Your task to perform on an android device: Open Android settings Image 0: 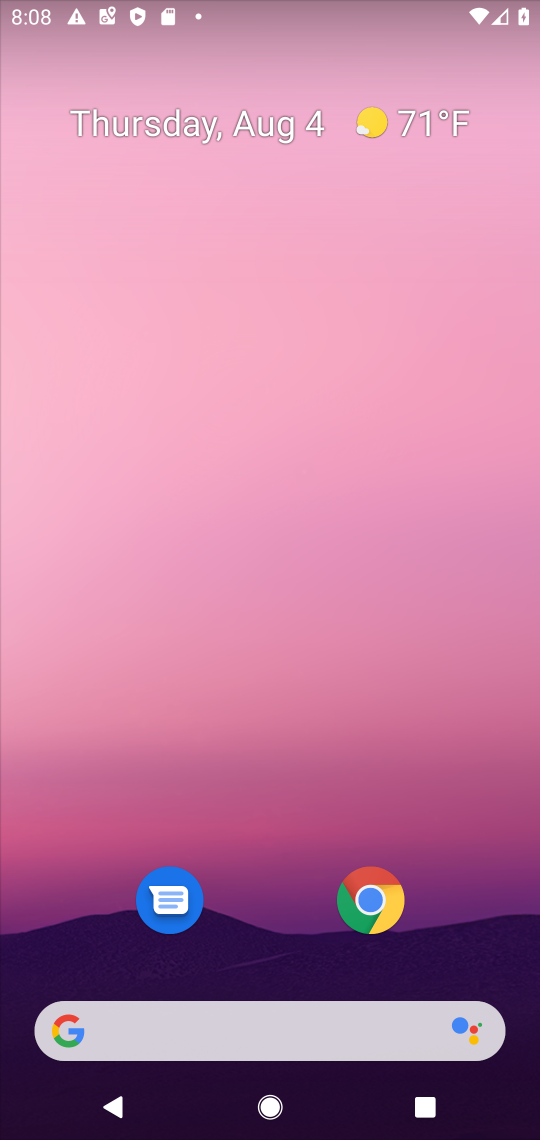
Step 0: drag from (256, 367) to (256, 184)
Your task to perform on an android device: Open Android settings Image 1: 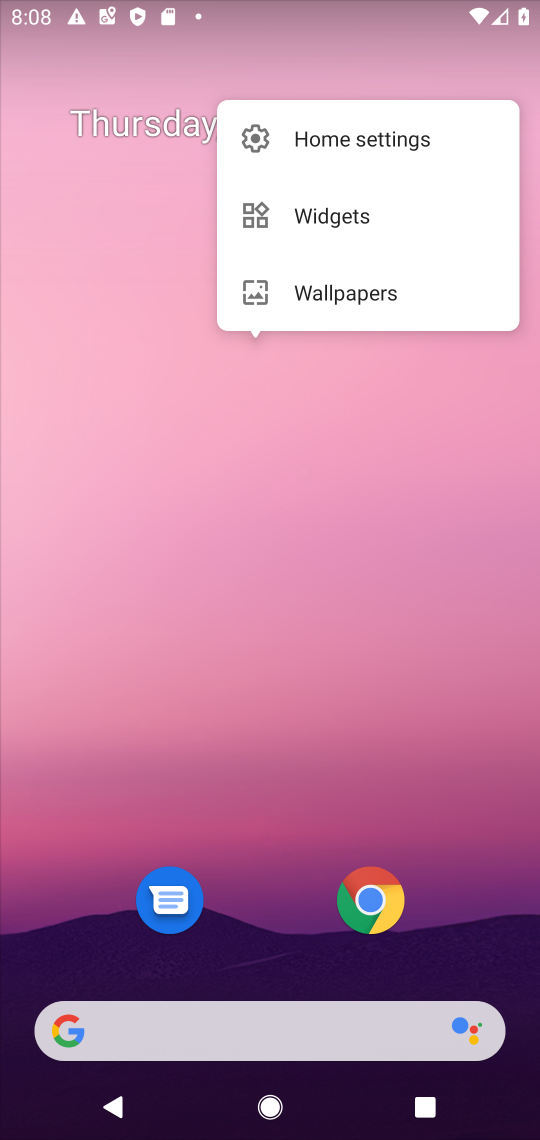
Step 1: click (309, 946)
Your task to perform on an android device: Open Android settings Image 2: 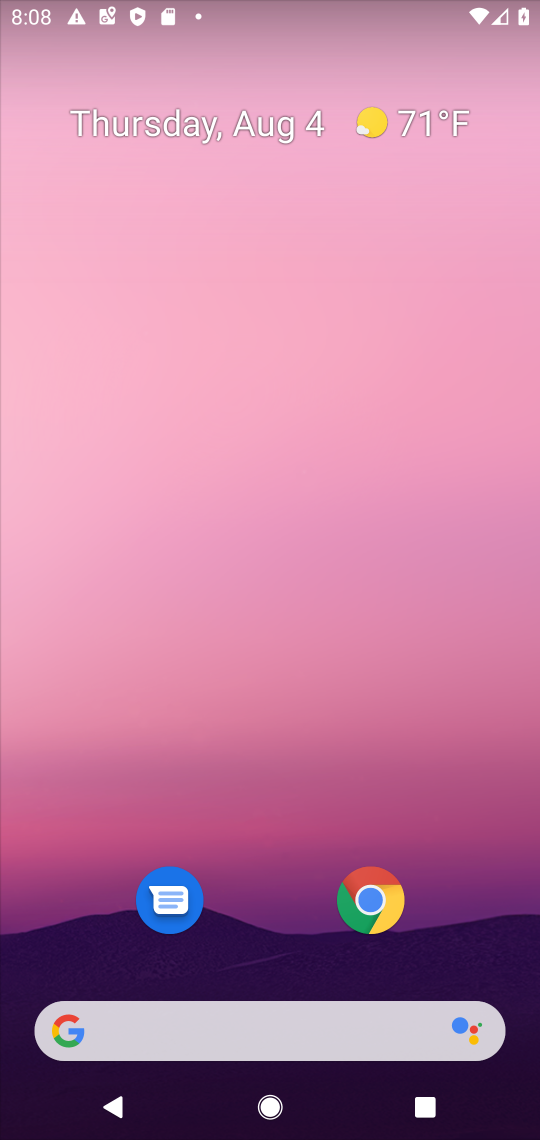
Step 2: drag from (262, 960) to (290, 59)
Your task to perform on an android device: Open Android settings Image 3: 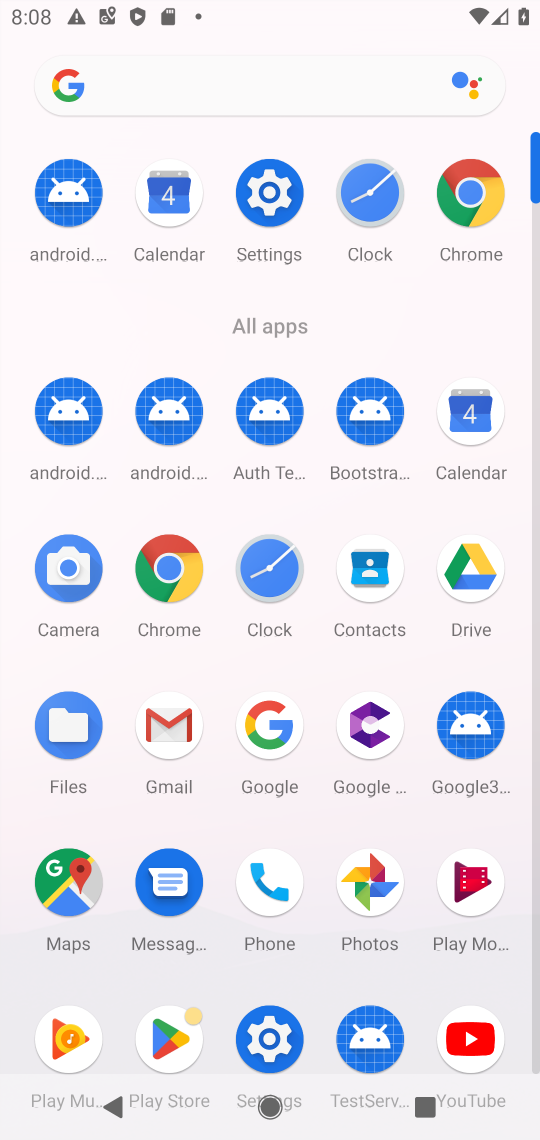
Step 3: click (268, 196)
Your task to perform on an android device: Open Android settings Image 4: 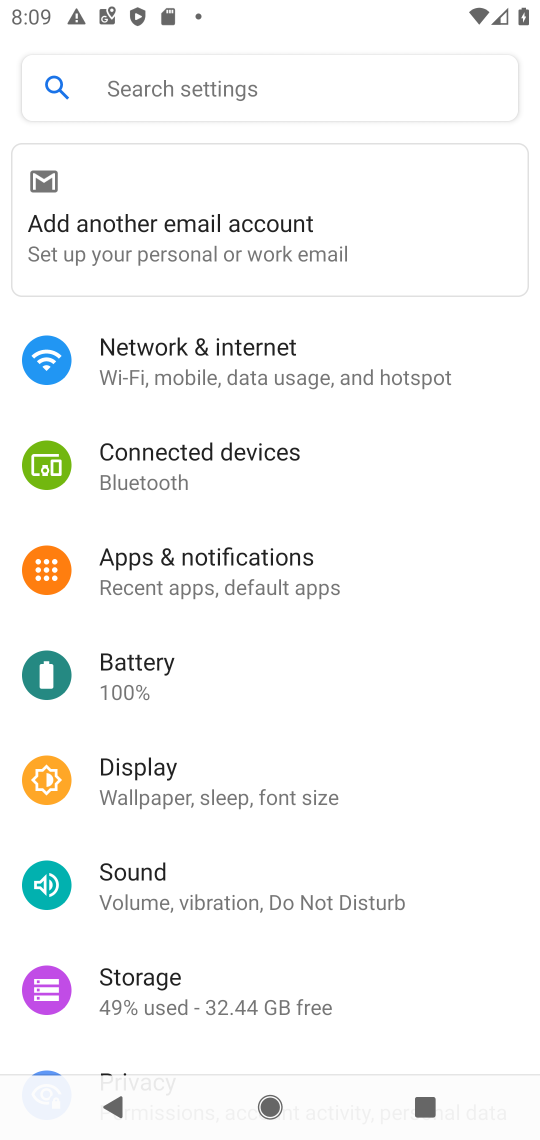
Step 4: drag from (160, 943) to (163, 233)
Your task to perform on an android device: Open Android settings Image 5: 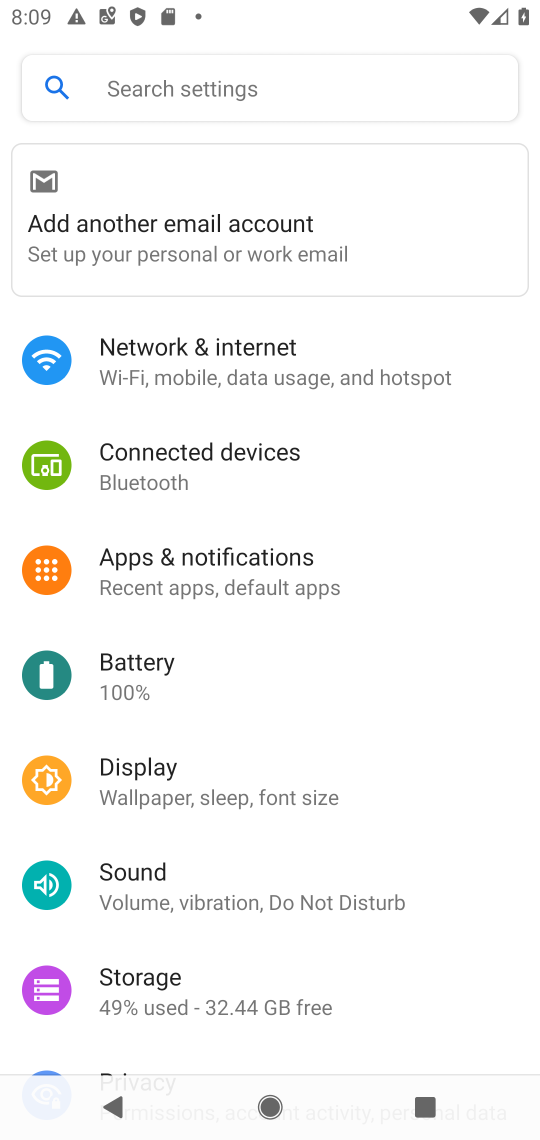
Step 5: drag from (134, 955) to (135, 181)
Your task to perform on an android device: Open Android settings Image 6: 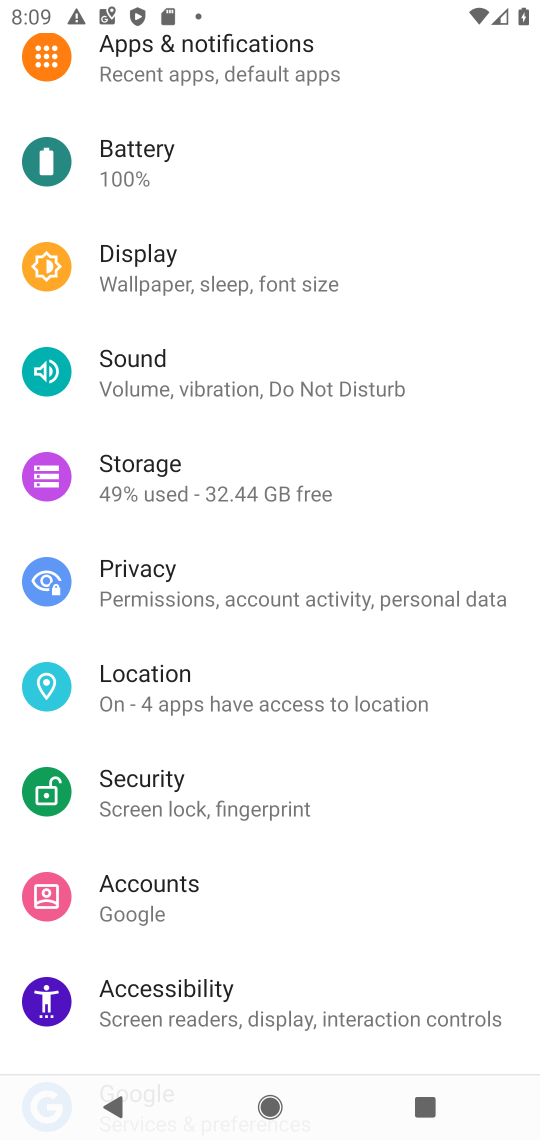
Step 6: drag from (158, 817) to (191, 178)
Your task to perform on an android device: Open Android settings Image 7: 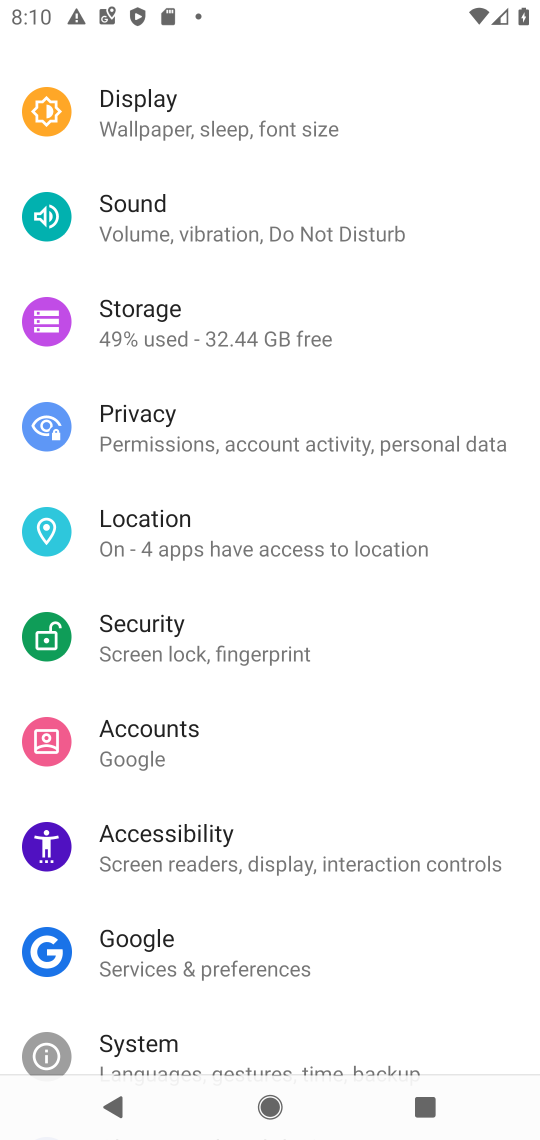
Step 7: drag from (192, 922) to (184, 476)
Your task to perform on an android device: Open Android settings Image 8: 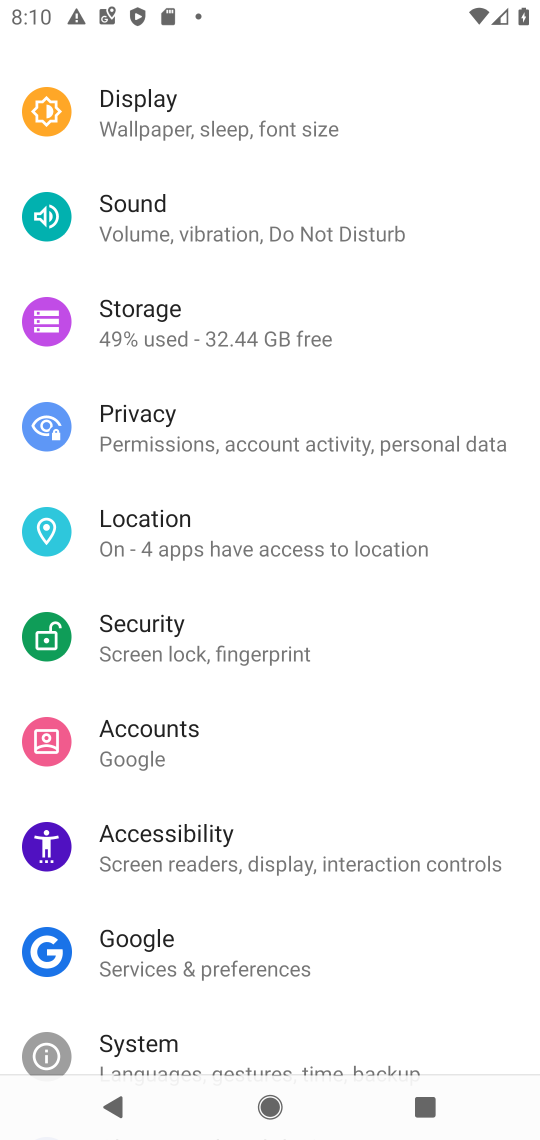
Step 8: click (184, 122)
Your task to perform on an android device: Open Android settings Image 9: 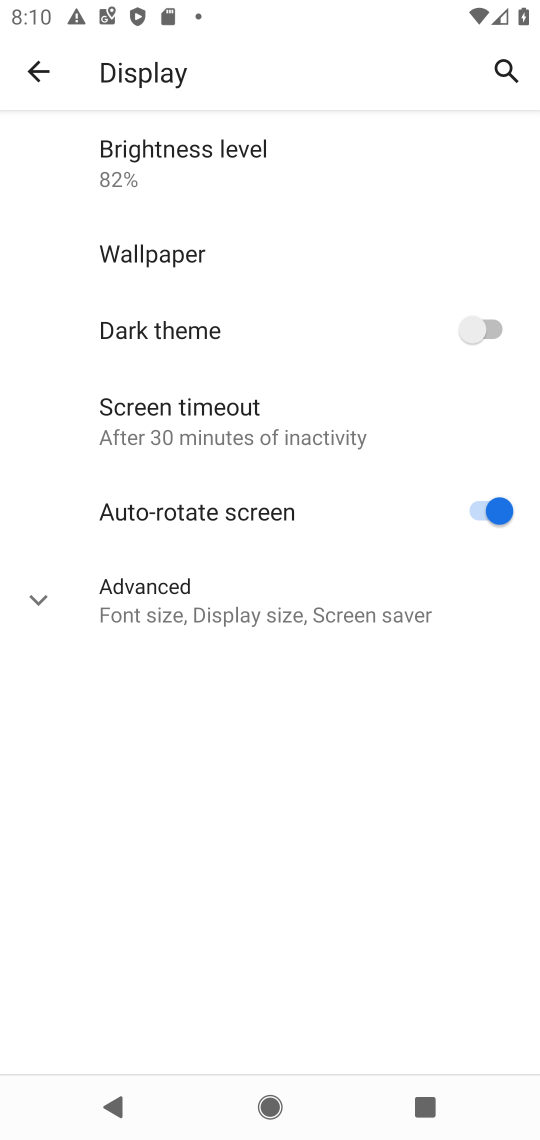
Step 9: click (38, 70)
Your task to perform on an android device: Open Android settings Image 10: 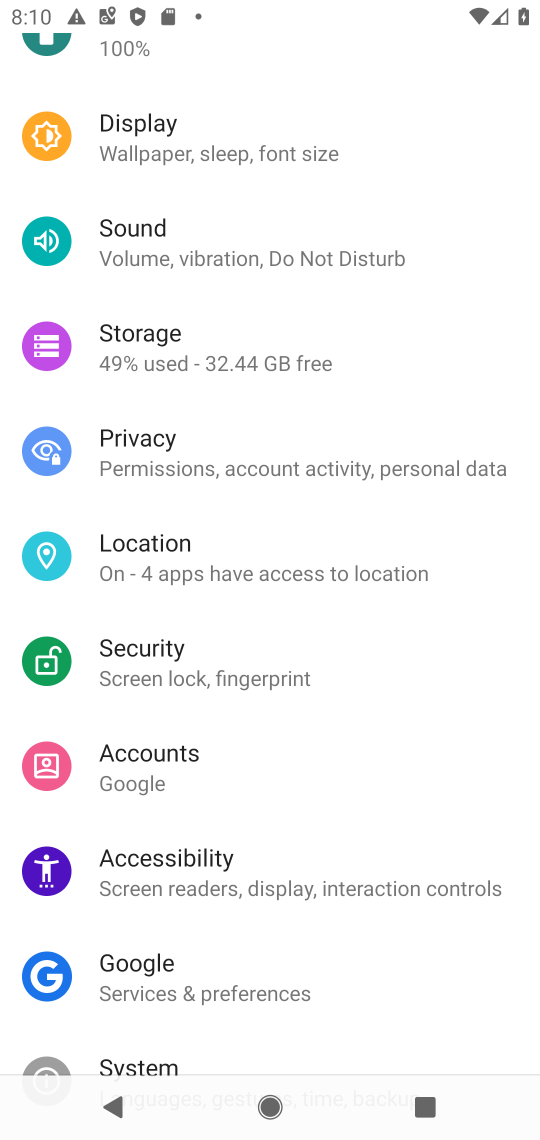
Step 10: drag from (157, 902) to (237, 355)
Your task to perform on an android device: Open Android settings Image 11: 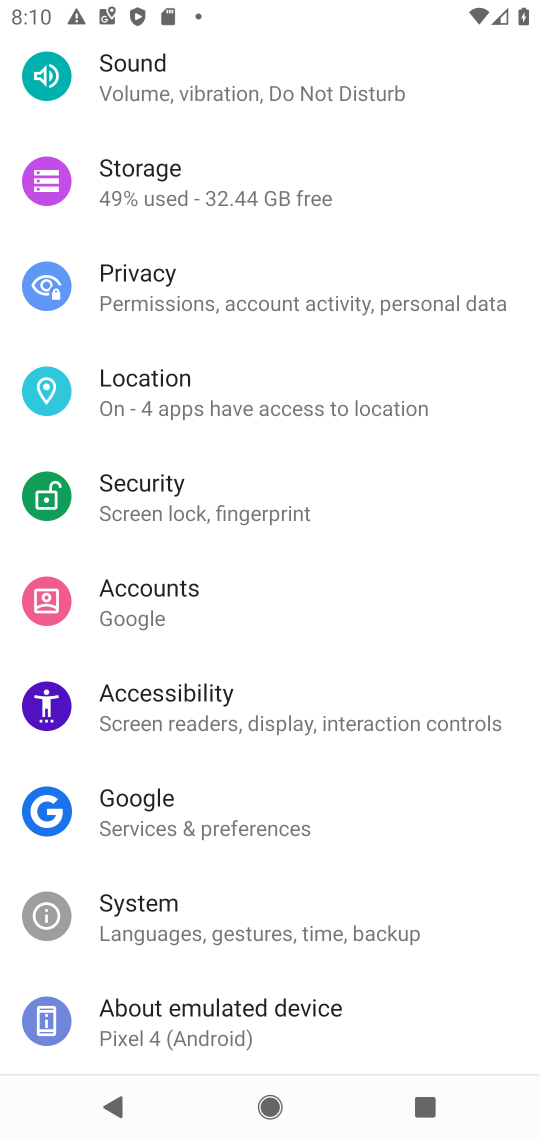
Step 11: click (178, 1018)
Your task to perform on an android device: Open Android settings Image 12: 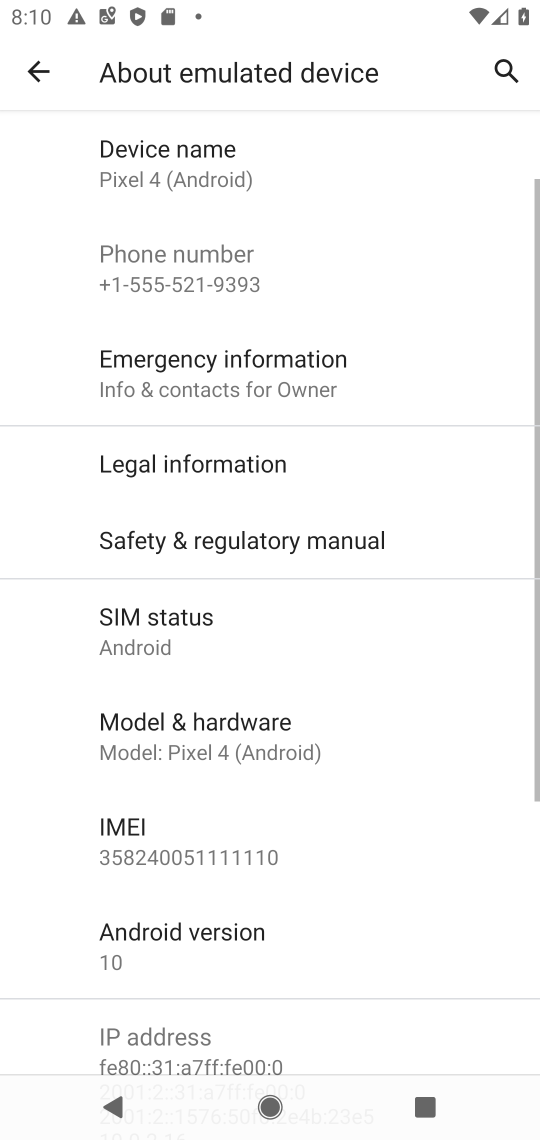
Step 12: click (128, 648)
Your task to perform on an android device: Open Android settings Image 13: 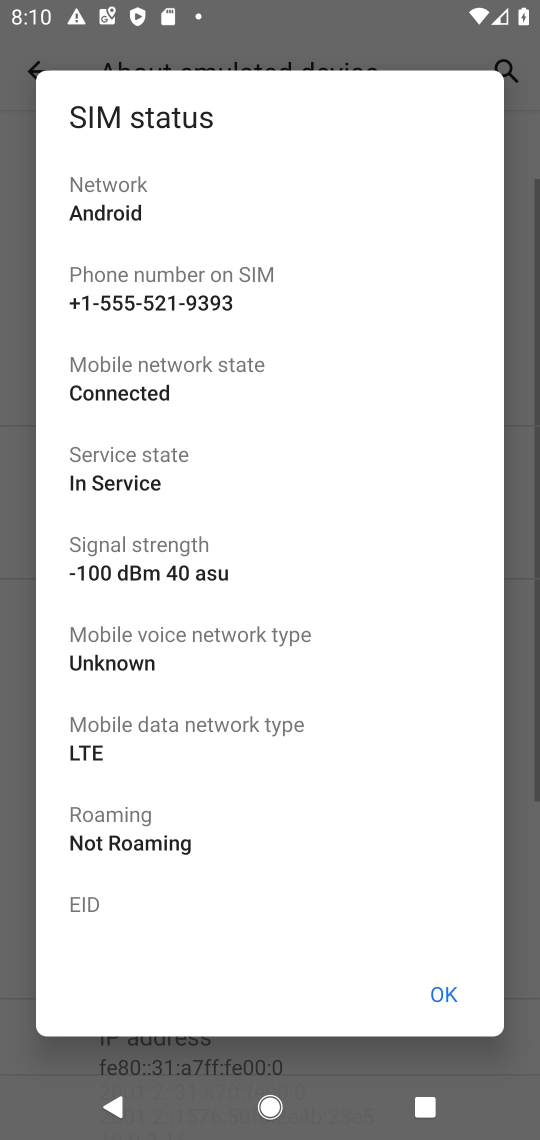
Step 13: task complete